Your task to perform on an android device: Open the stopwatch Image 0: 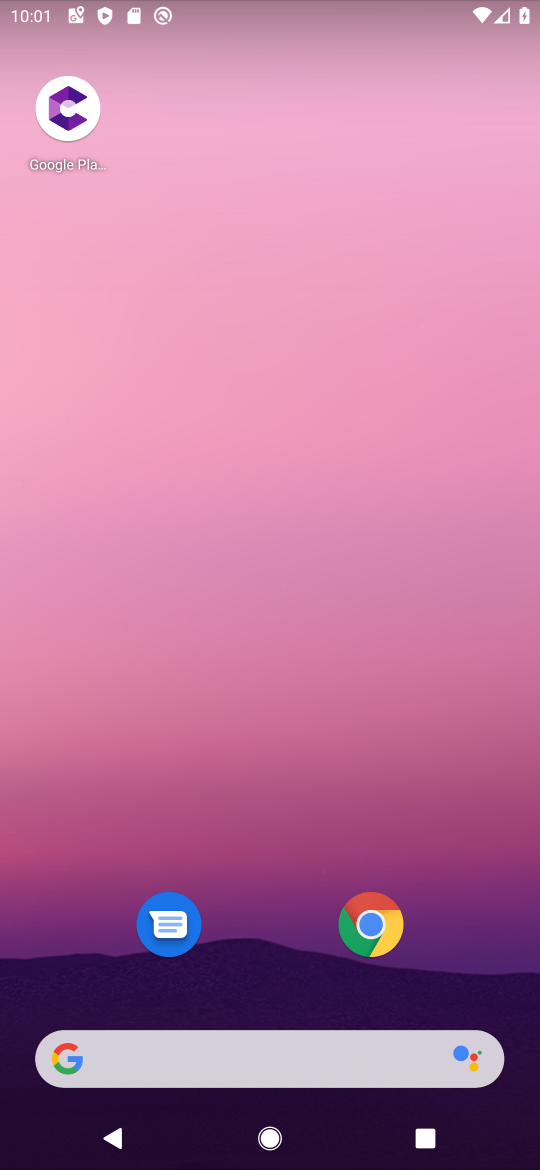
Step 0: press home button
Your task to perform on an android device: Open the stopwatch Image 1: 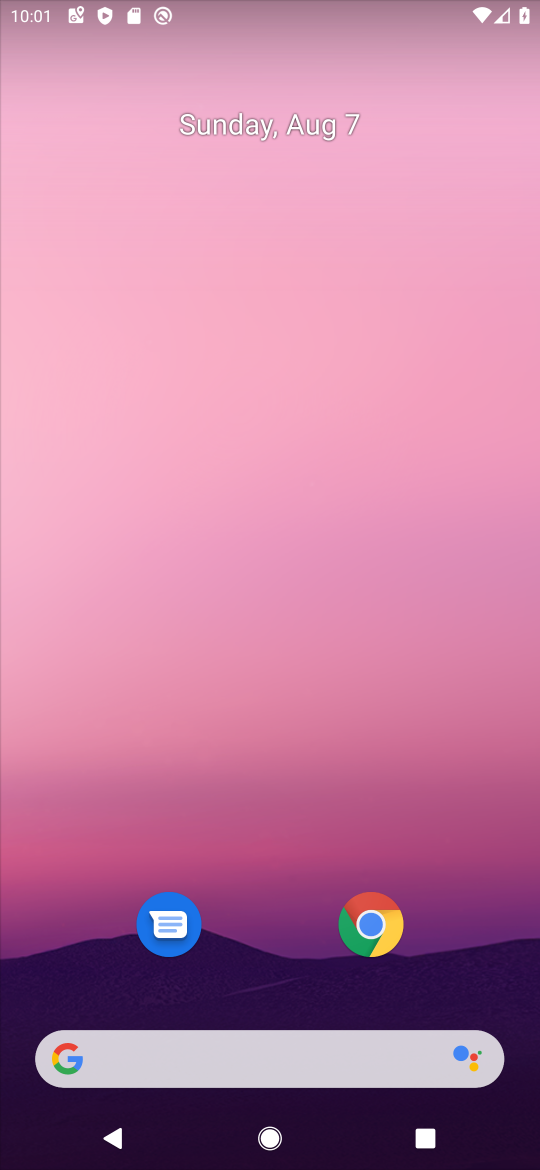
Step 1: drag from (501, 865) to (342, 128)
Your task to perform on an android device: Open the stopwatch Image 2: 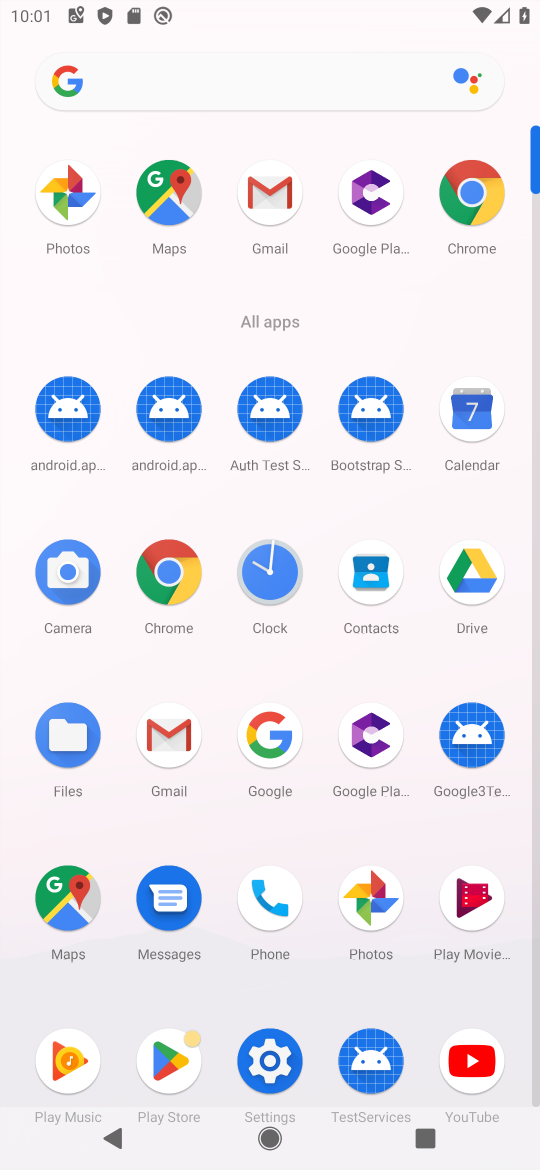
Step 2: click (285, 582)
Your task to perform on an android device: Open the stopwatch Image 3: 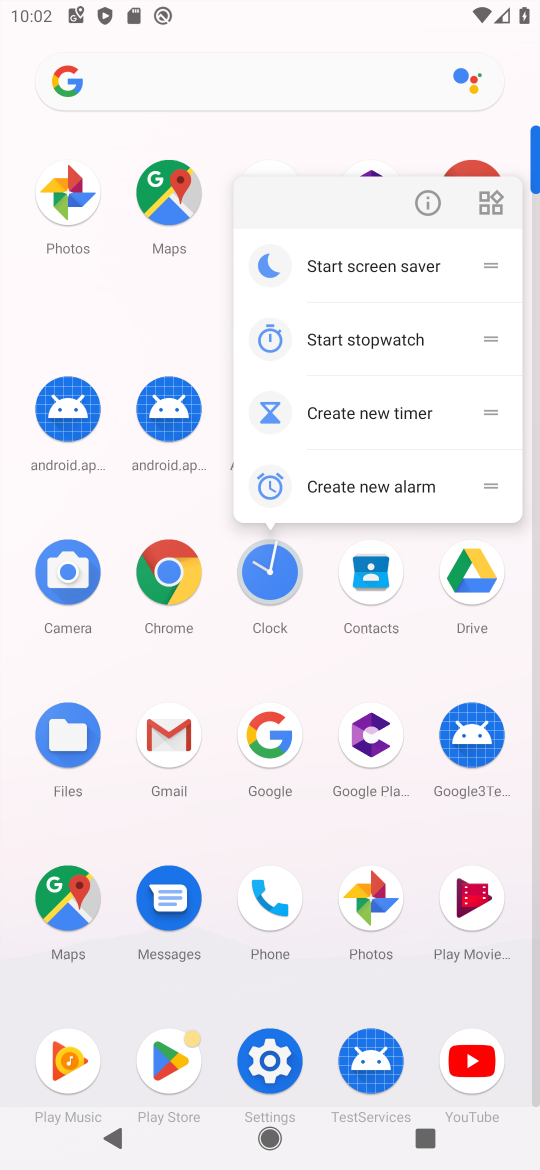
Step 3: click (282, 596)
Your task to perform on an android device: Open the stopwatch Image 4: 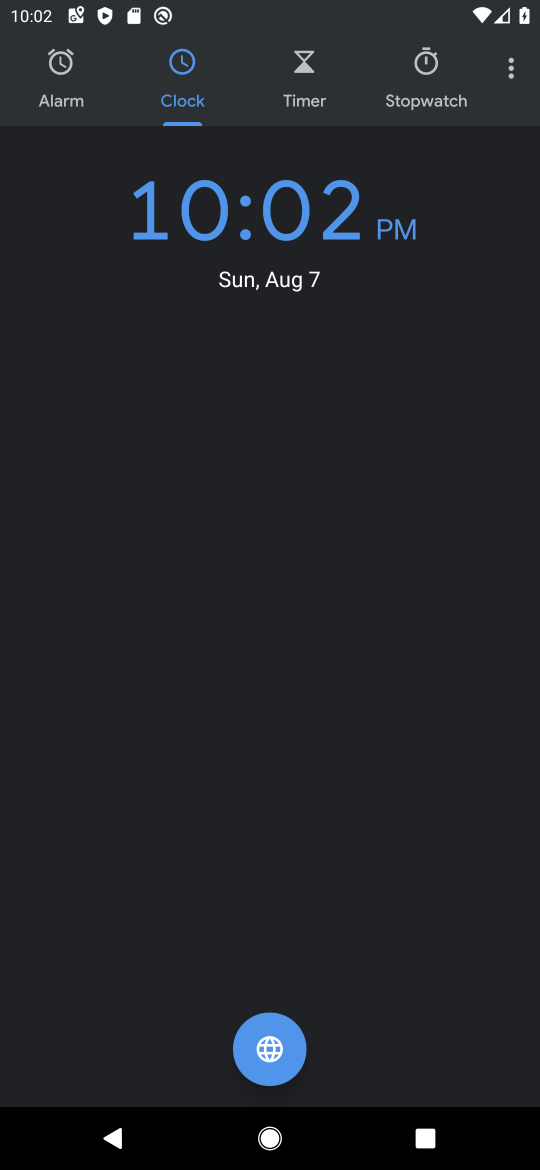
Step 4: click (437, 56)
Your task to perform on an android device: Open the stopwatch Image 5: 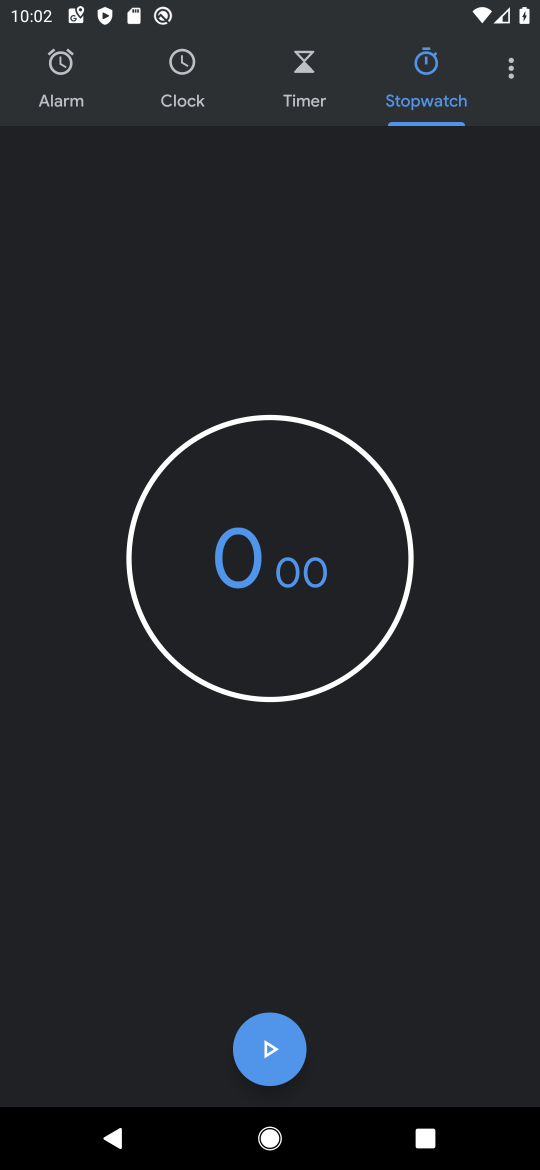
Step 5: task complete